Your task to perform on an android device: Open Maps and search for coffee Image 0: 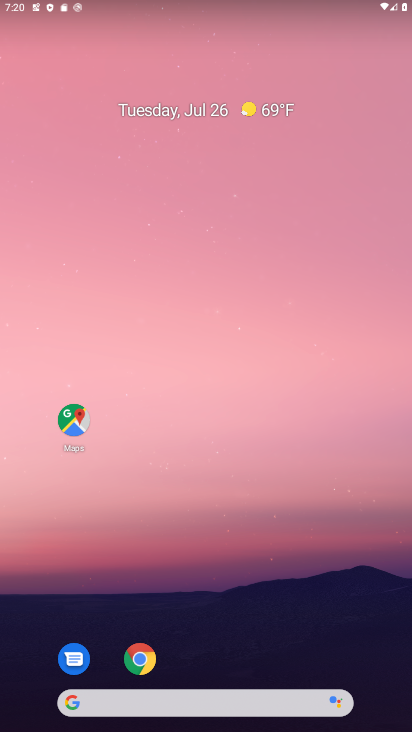
Step 0: press home button
Your task to perform on an android device: Open Maps and search for coffee Image 1: 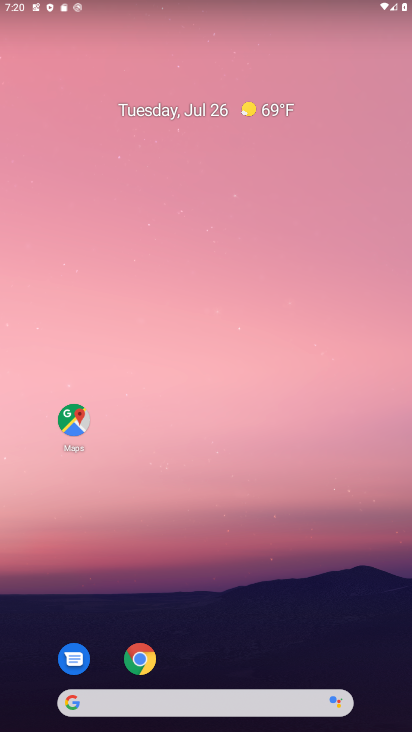
Step 1: drag from (250, 723) to (256, 213)
Your task to perform on an android device: Open Maps and search for coffee Image 2: 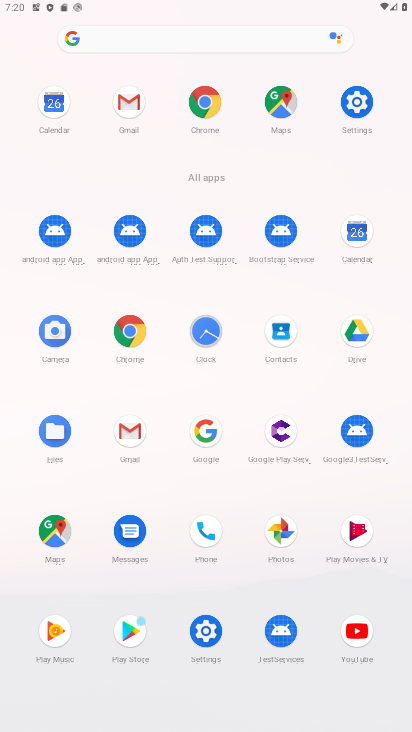
Step 2: click (49, 535)
Your task to perform on an android device: Open Maps and search for coffee Image 3: 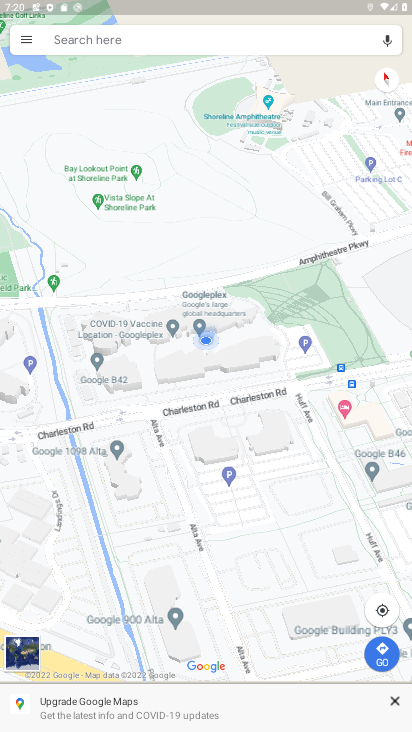
Step 3: click (89, 39)
Your task to perform on an android device: Open Maps and search for coffee Image 4: 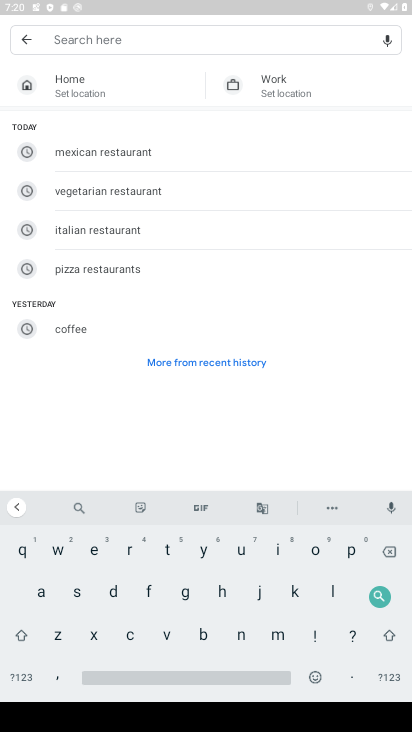
Step 4: click (59, 330)
Your task to perform on an android device: Open Maps and search for coffee Image 5: 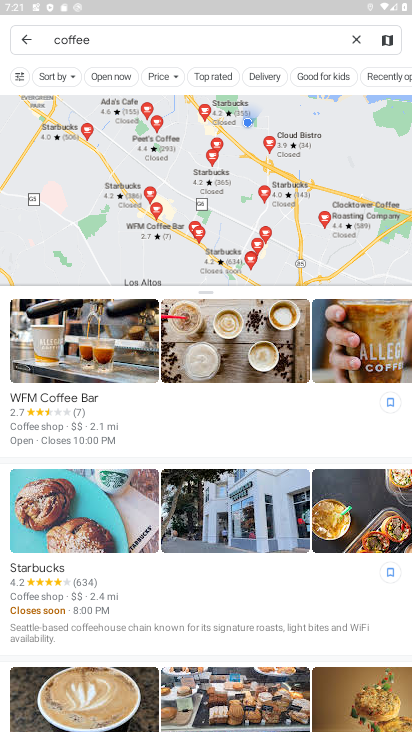
Step 5: task complete